Your task to perform on an android device: check google app version Image 0: 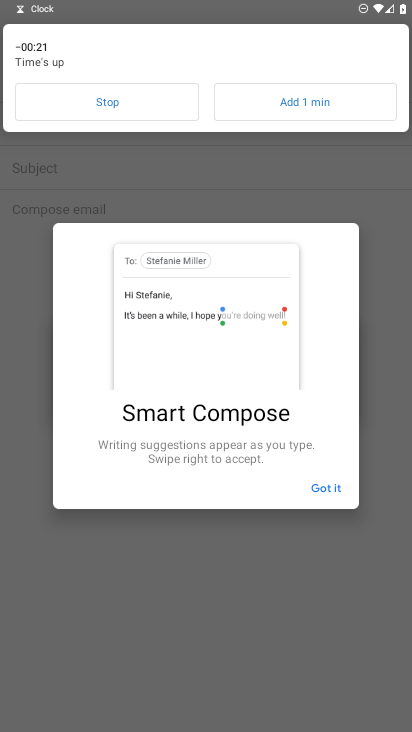
Step 0: press home button
Your task to perform on an android device: check google app version Image 1: 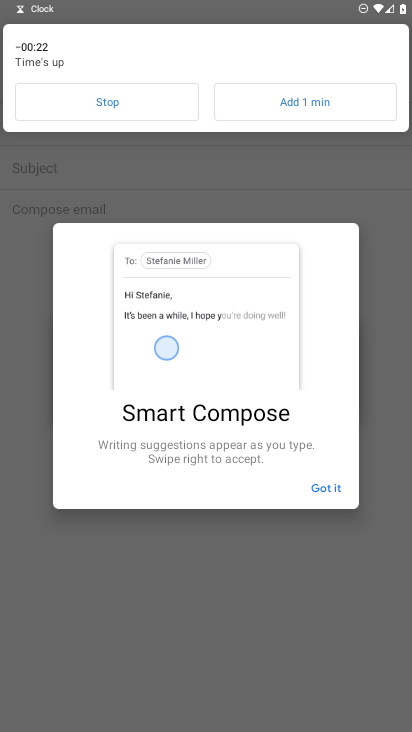
Step 1: click (319, 229)
Your task to perform on an android device: check google app version Image 2: 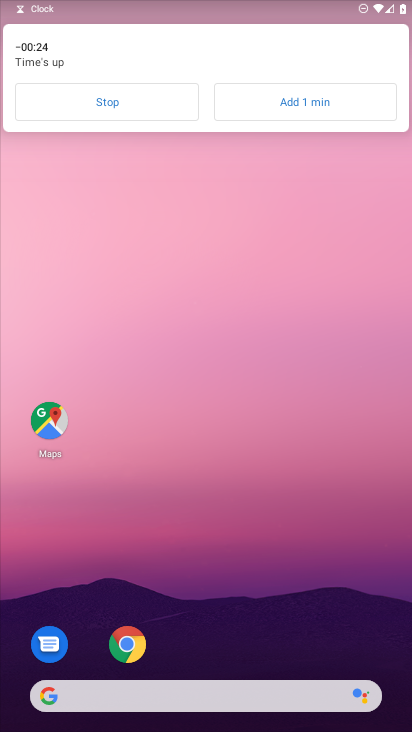
Step 2: click (91, 98)
Your task to perform on an android device: check google app version Image 3: 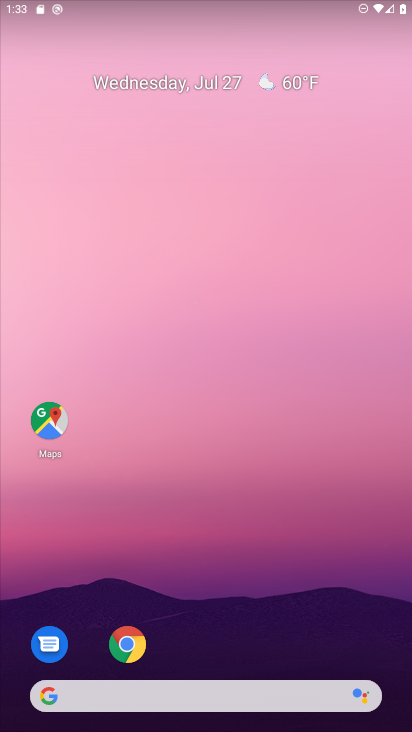
Step 3: drag from (195, 597) to (123, 118)
Your task to perform on an android device: check google app version Image 4: 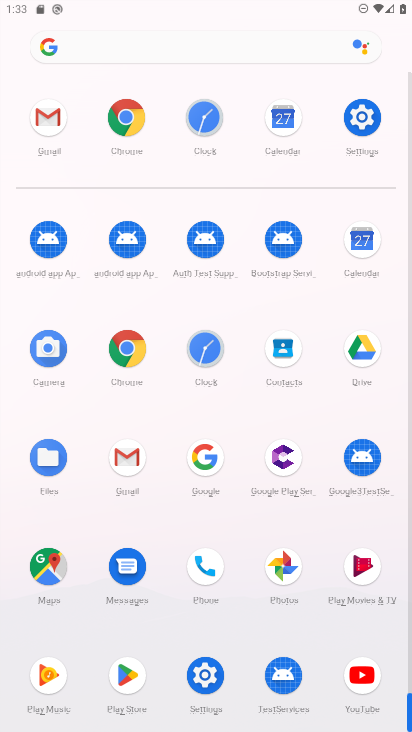
Step 4: click (202, 440)
Your task to perform on an android device: check google app version Image 5: 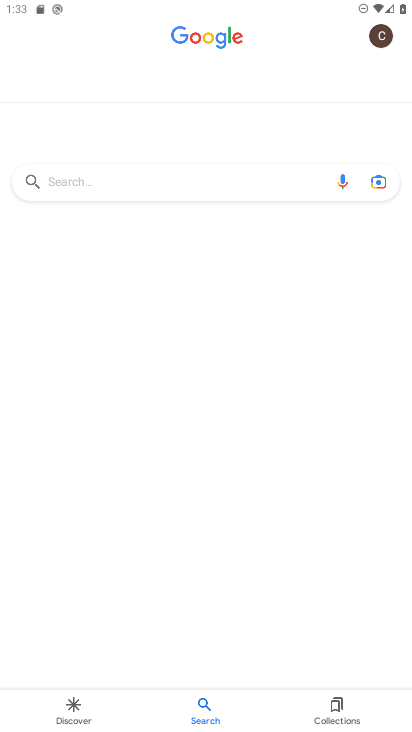
Step 5: click (379, 39)
Your task to perform on an android device: check google app version Image 6: 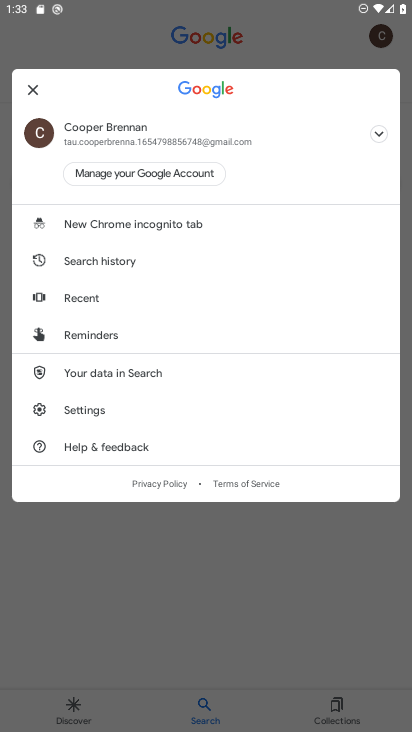
Step 6: click (109, 400)
Your task to perform on an android device: check google app version Image 7: 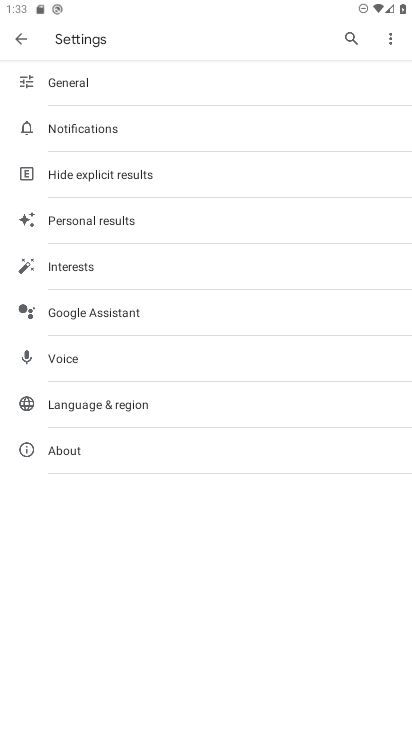
Step 7: click (134, 463)
Your task to perform on an android device: check google app version Image 8: 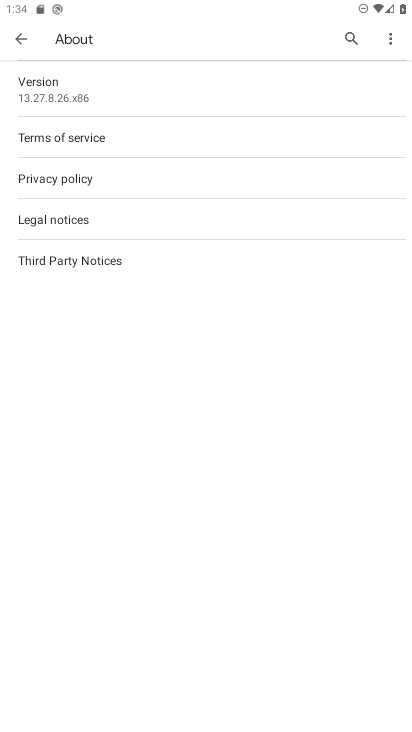
Step 8: click (84, 93)
Your task to perform on an android device: check google app version Image 9: 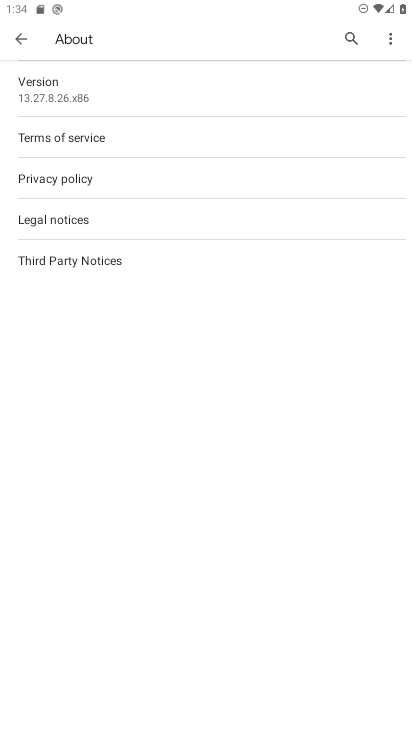
Step 9: task complete